Your task to perform on an android device: Open the Play Movies app and select the watchlist tab. Image 0: 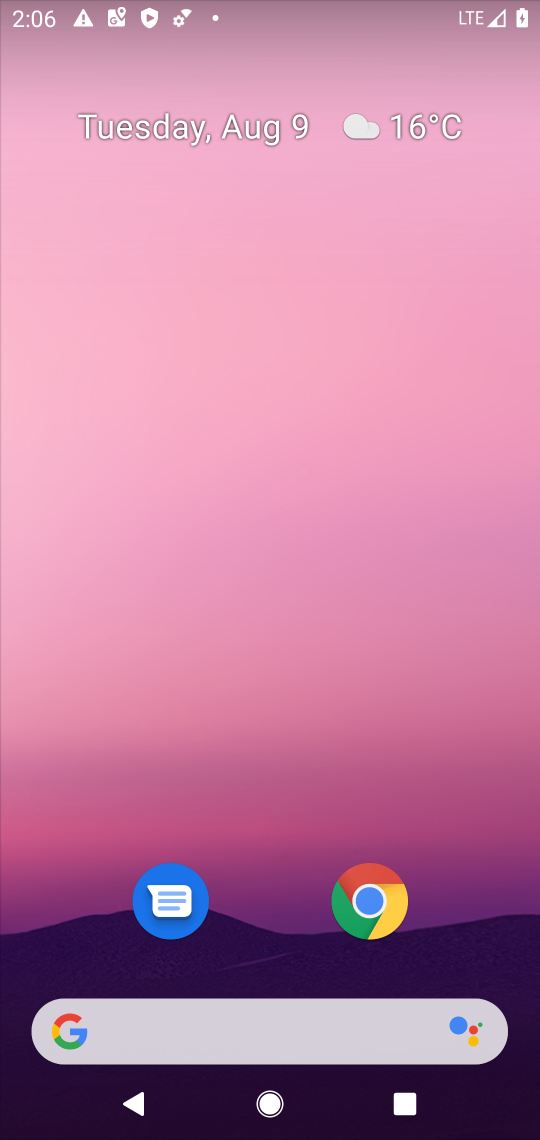
Step 0: drag from (507, 977) to (445, 163)
Your task to perform on an android device: Open the Play Movies app and select the watchlist tab. Image 1: 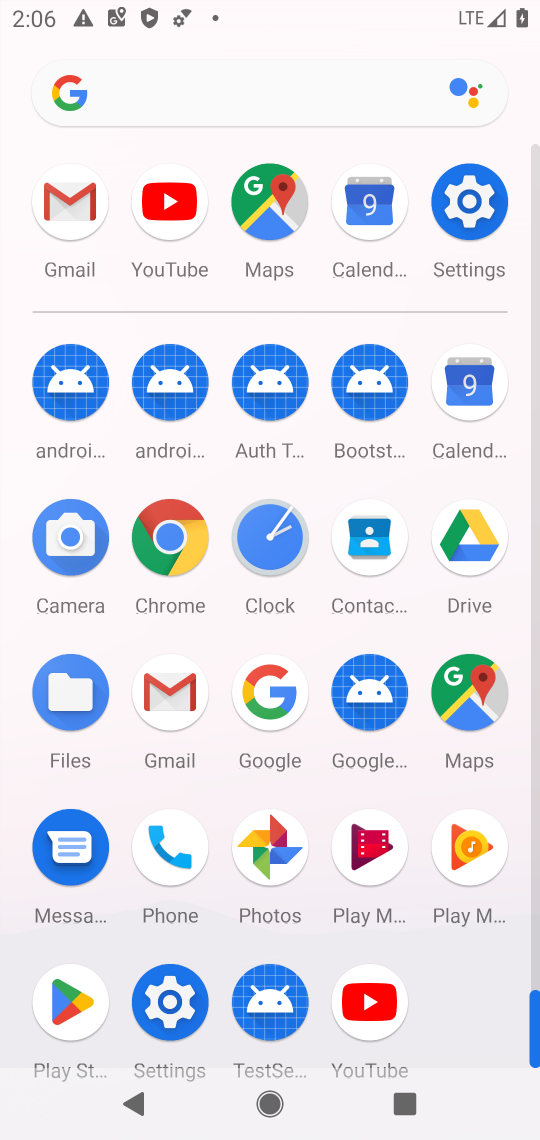
Step 1: click (373, 845)
Your task to perform on an android device: Open the Play Movies app and select the watchlist tab. Image 2: 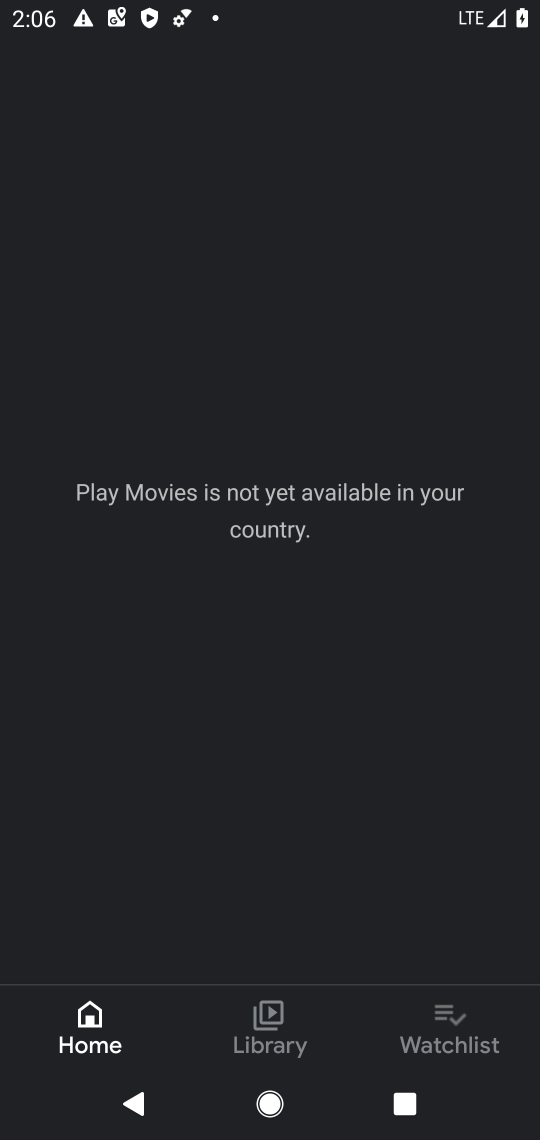
Step 2: click (440, 1025)
Your task to perform on an android device: Open the Play Movies app and select the watchlist tab. Image 3: 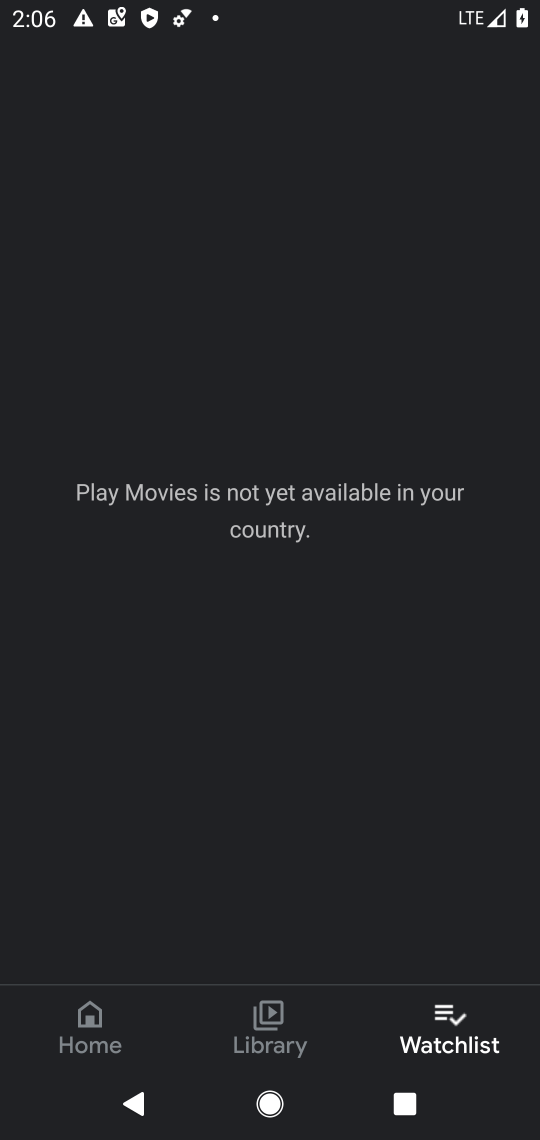
Step 3: task complete